Your task to perform on an android device: check data usage Image 0: 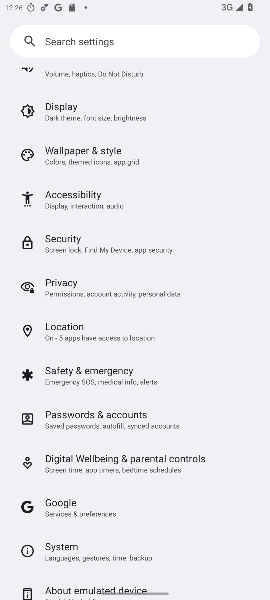
Step 0: press home button
Your task to perform on an android device: check data usage Image 1: 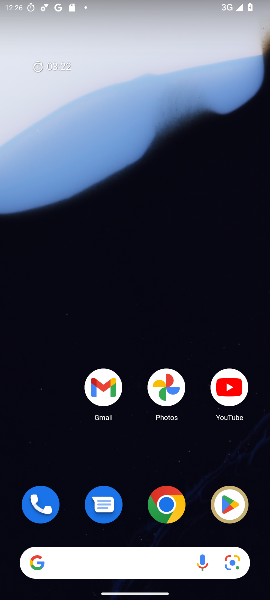
Step 1: drag from (137, 512) to (55, 68)
Your task to perform on an android device: check data usage Image 2: 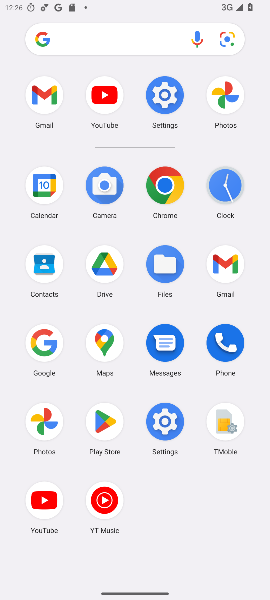
Step 2: click (168, 98)
Your task to perform on an android device: check data usage Image 3: 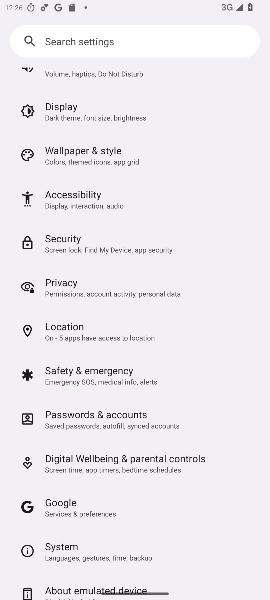
Step 3: drag from (129, 184) to (165, 552)
Your task to perform on an android device: check data usage Image 4: 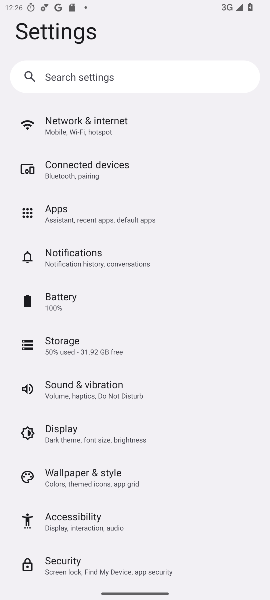
Step 4: click (95, 73)
Your task to perform on an android device: check data usage Image 5: 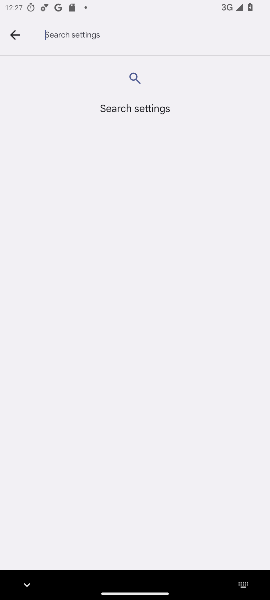
Step 5: type "mobile data"
Your task to perform on an android device: check data usage Image 6: 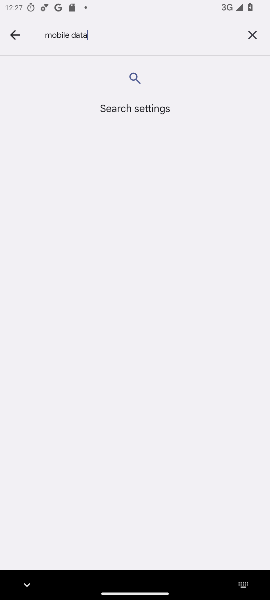
Step 6: press enter
Your task to perform on an android device: check data usage Image 7: 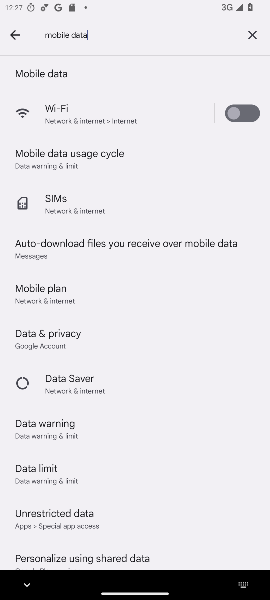
Step 7: click (49, 289)
Your task to perform on an android device: check data usage Image 8: 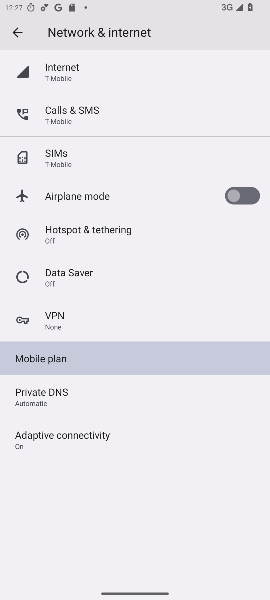
Step 8: press back button
Your task to perform on an android device: check data usage Image 9: 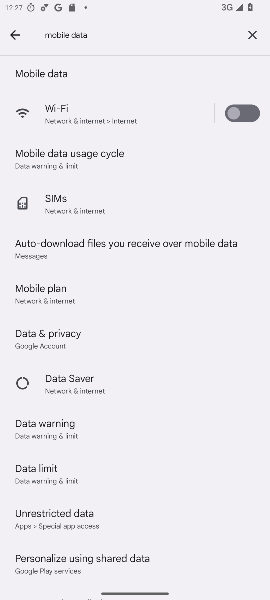
Step 9: click (44, 480)
Your task to perform on an android device: check data usage Image 10: 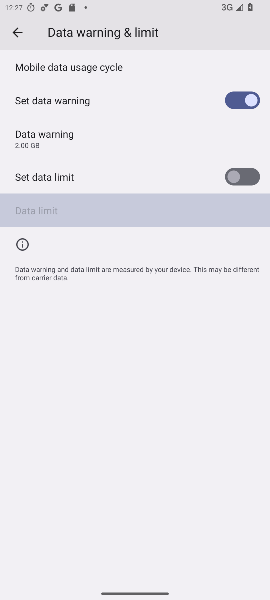
Step 10: task complete